Your task to perform on an android device: Go to settings Image 0: 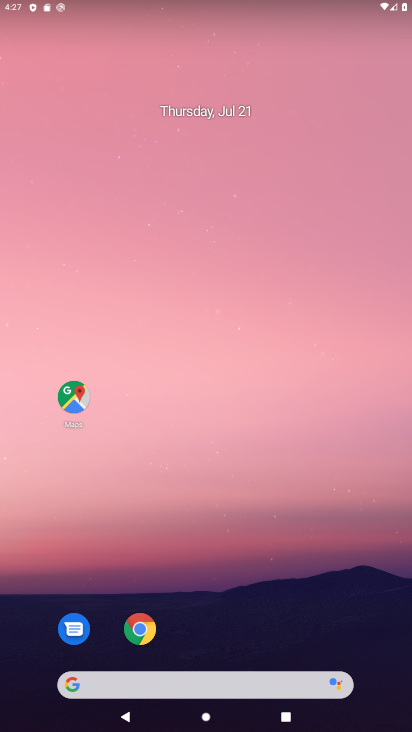
Step 0: drag from (222, 629) to (253, 169)
Your task to perform on an android device: Go to settings Image 1: 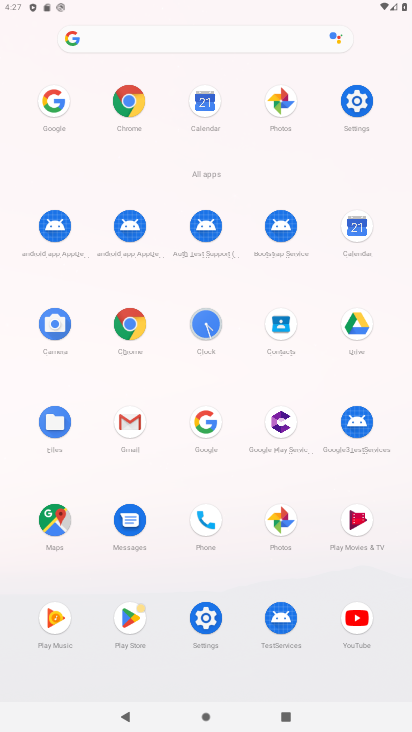
Step 1: click (353, 97)
Your task to perform on an android device: Go to settings Image 2: 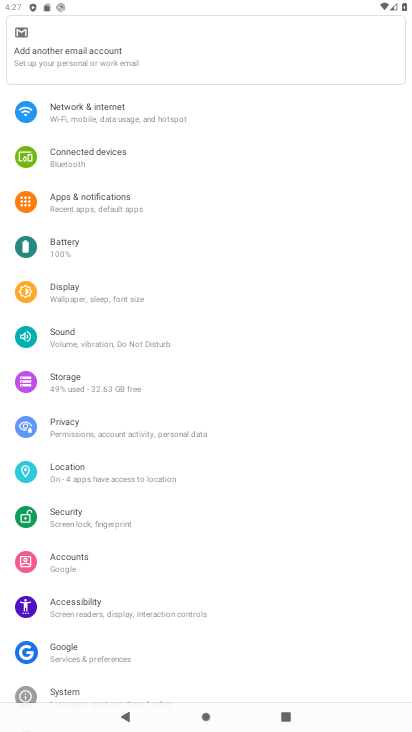
Step 2: task complete